Your task to perform on an android device: Open settings on Google Maps Image 0: 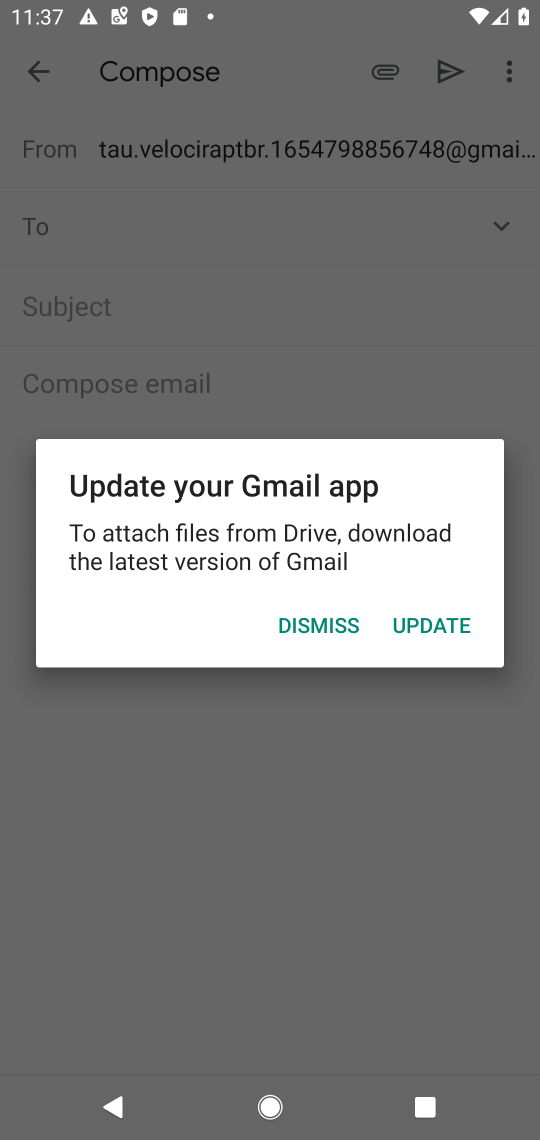
Step 0: press home button
Your task to perform on an android device: Open settings on Google Maps Image 1: 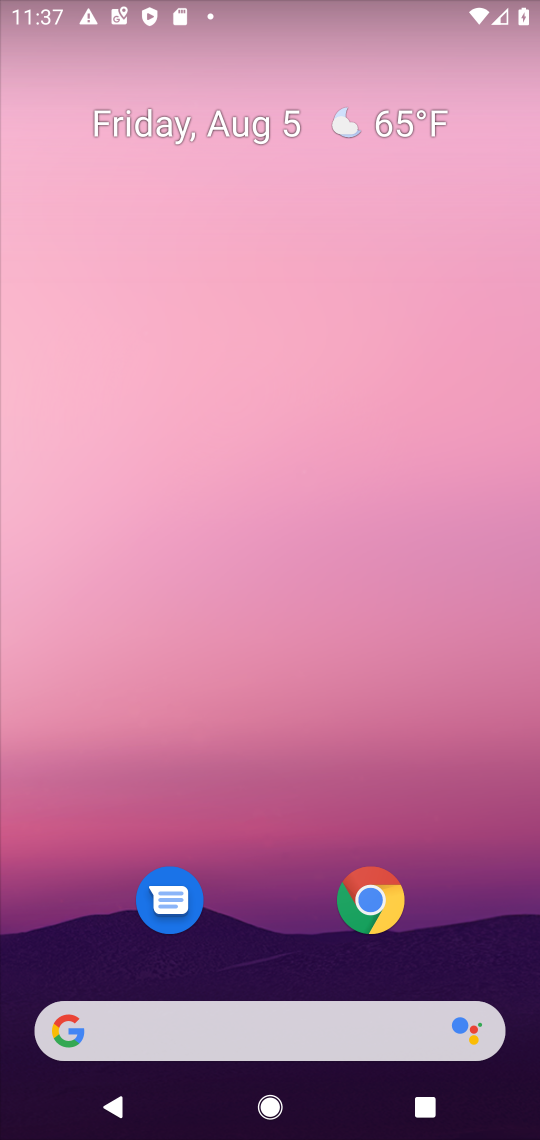
Step 1: press home button
Your task to perform on an android device: Open settings on Google Maps Image 2: 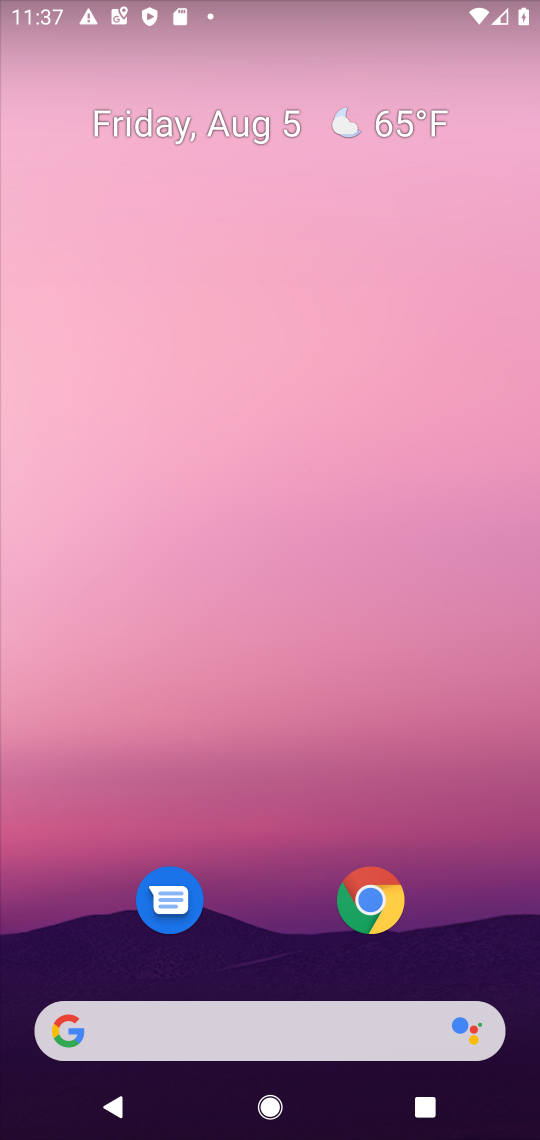
Step 2: press home button
Your task to perform on an android device: Open settings on Google Maps Image 3: 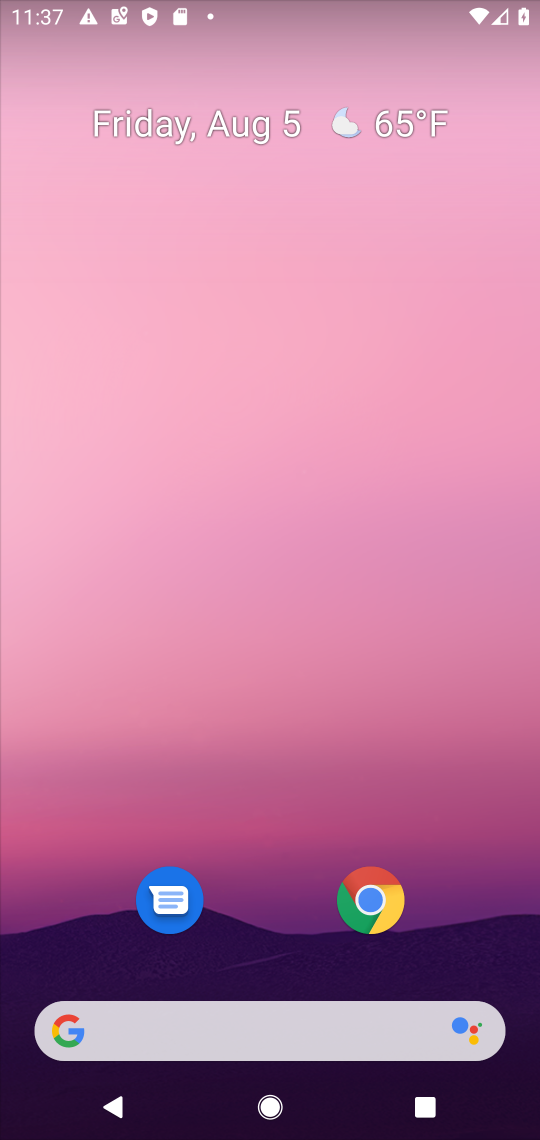
Step 3: drag from (297, 986) to (285, 116)
Your task to perform on an android device: Open settings on Google Maps Image 4: 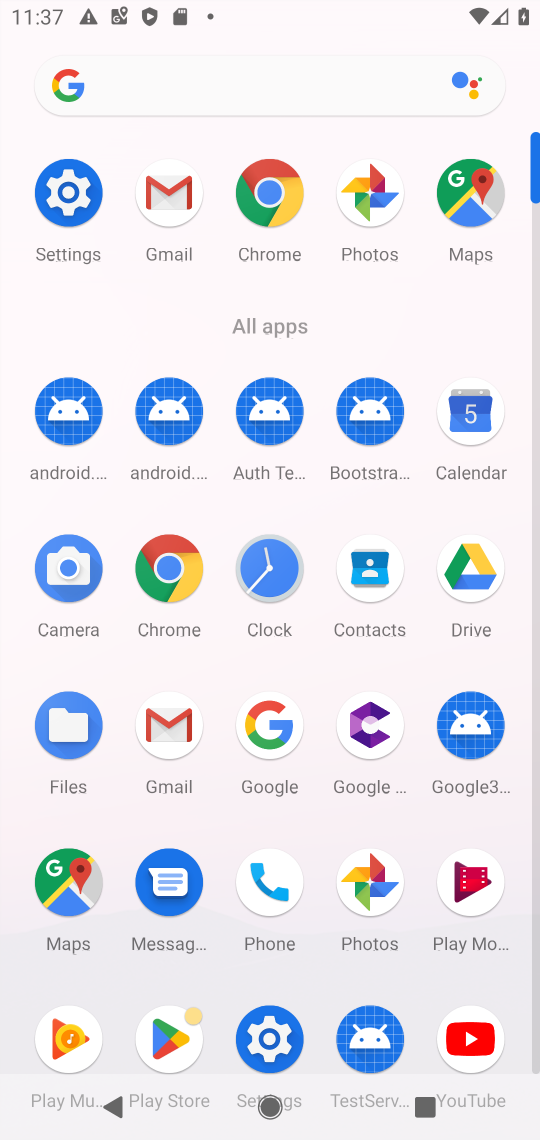
Step 4: click (76, 201)
Your task to perform on an android device: Open settings on Google Maps Image 5: 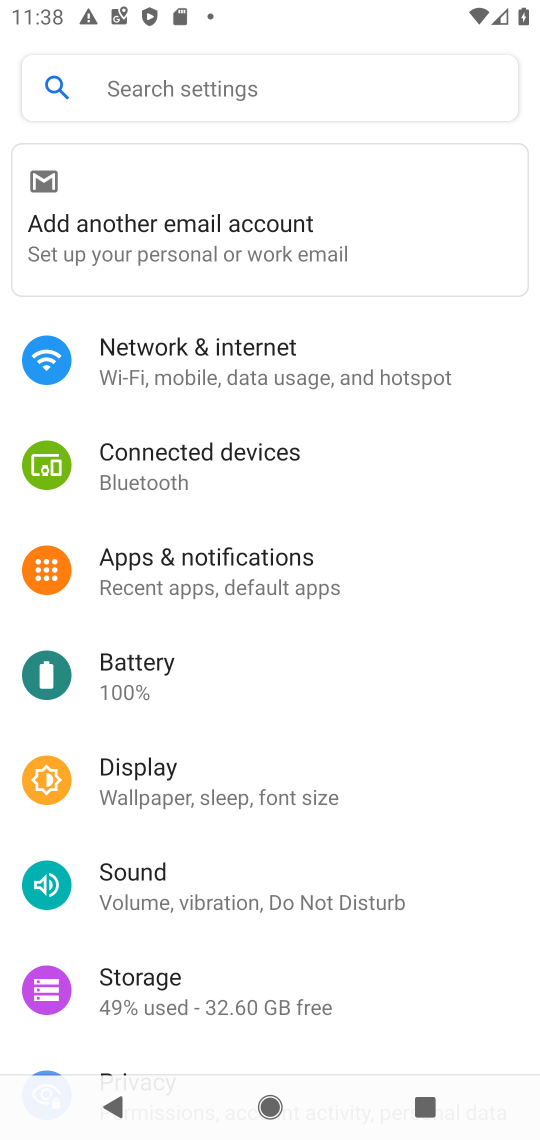
Step 5: press home button
Your task to perform on an android device: Open settings on Google Maps Image 6: 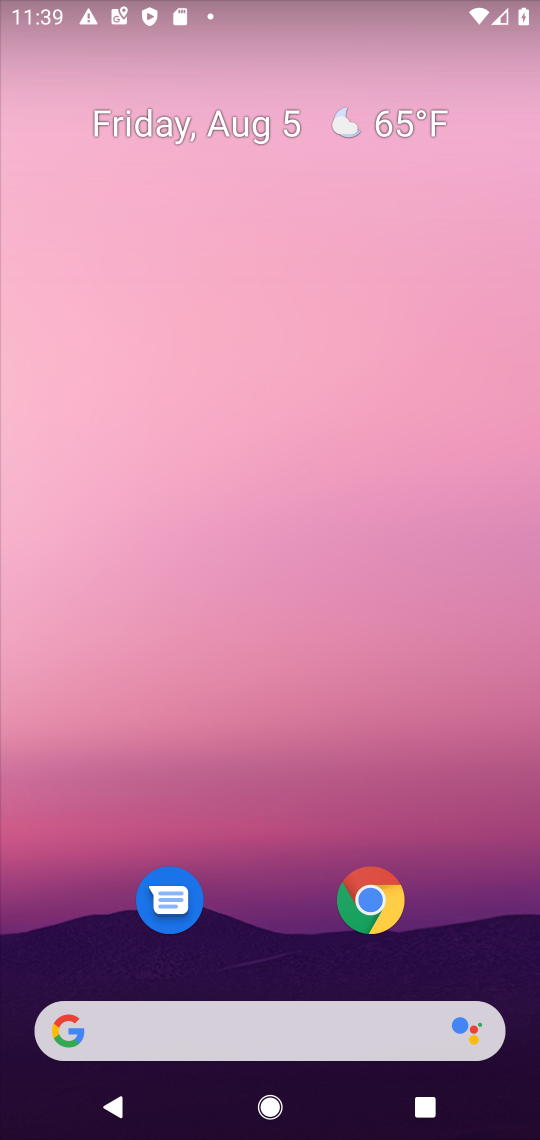
Step 6: drag from (280, 949) to (257, 135)
Your task to perform on an android device: Open settings on Google Maps Image 7: 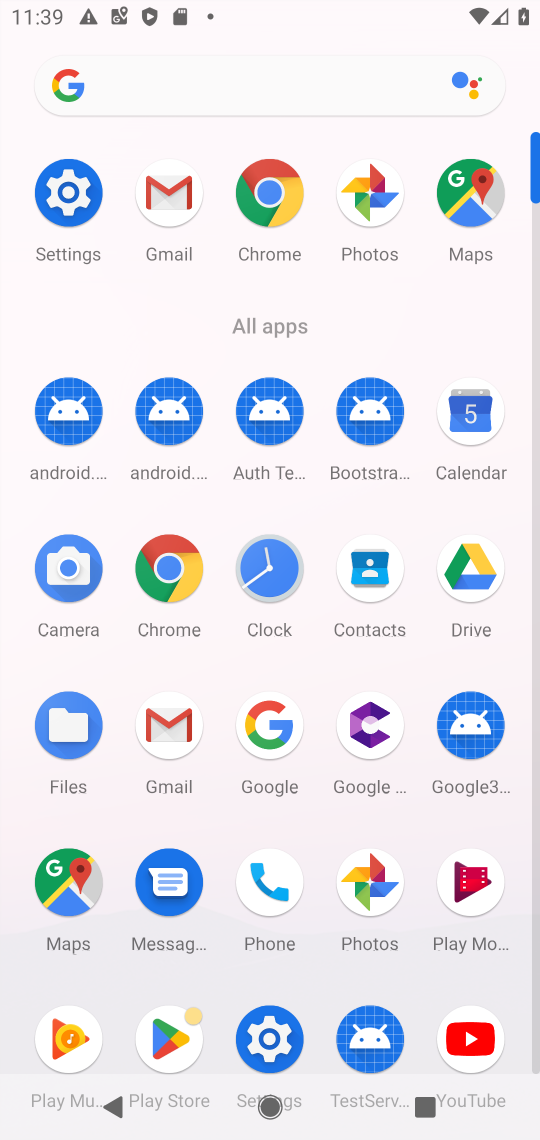
Step 7: click (69, 877)
Your task to perform on an android device: Open settings on Google Maps Image 8: 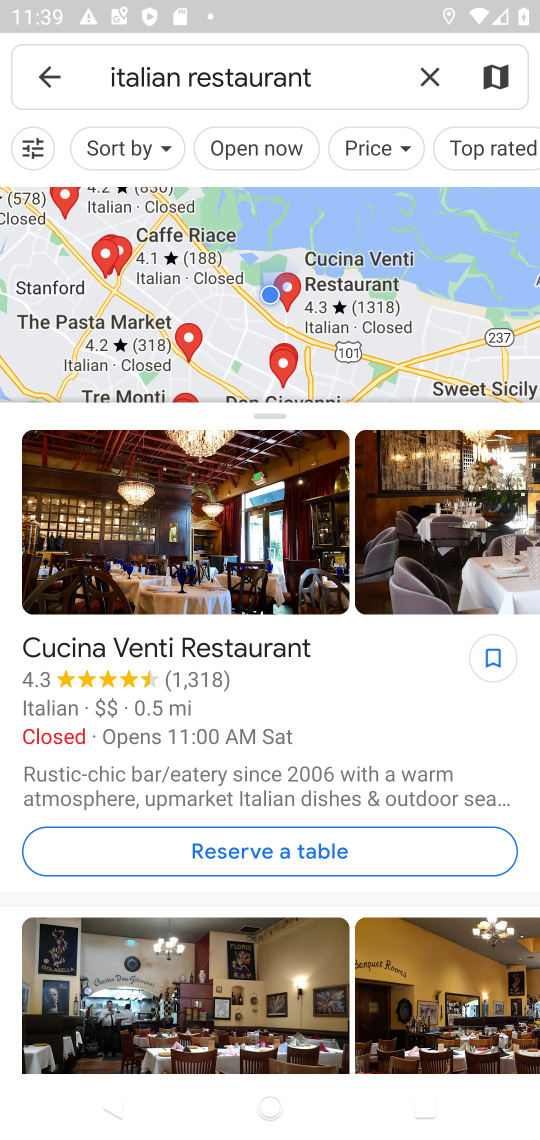
Step 8: click (44, 77)
Your task to perform on an android device: Open settings on Google Maps Image 9: 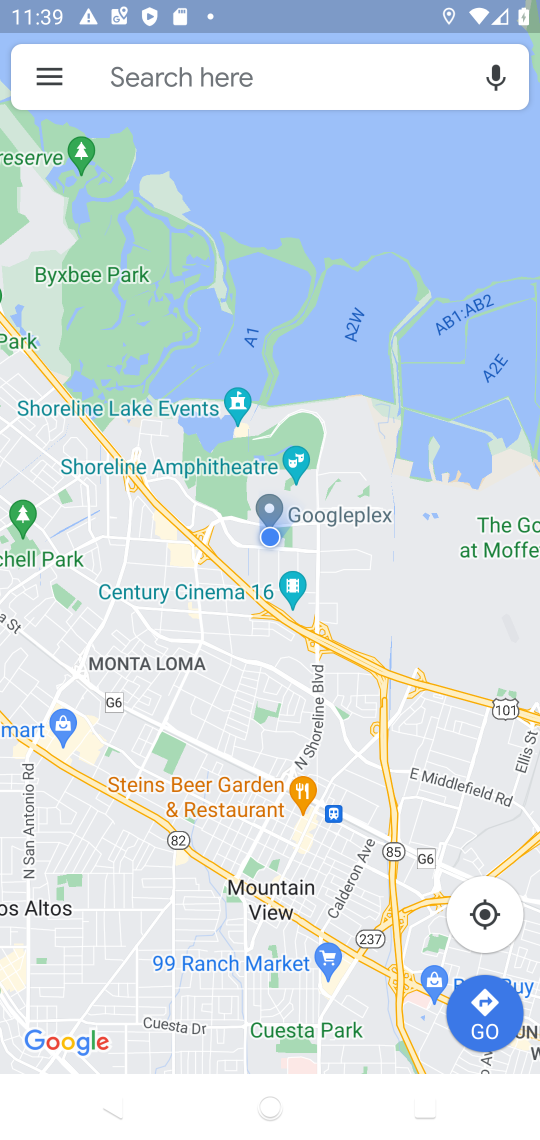
Step 9: click (44, 77)
Your task to perform on an android device: Open settings on Google Maps Image 10: 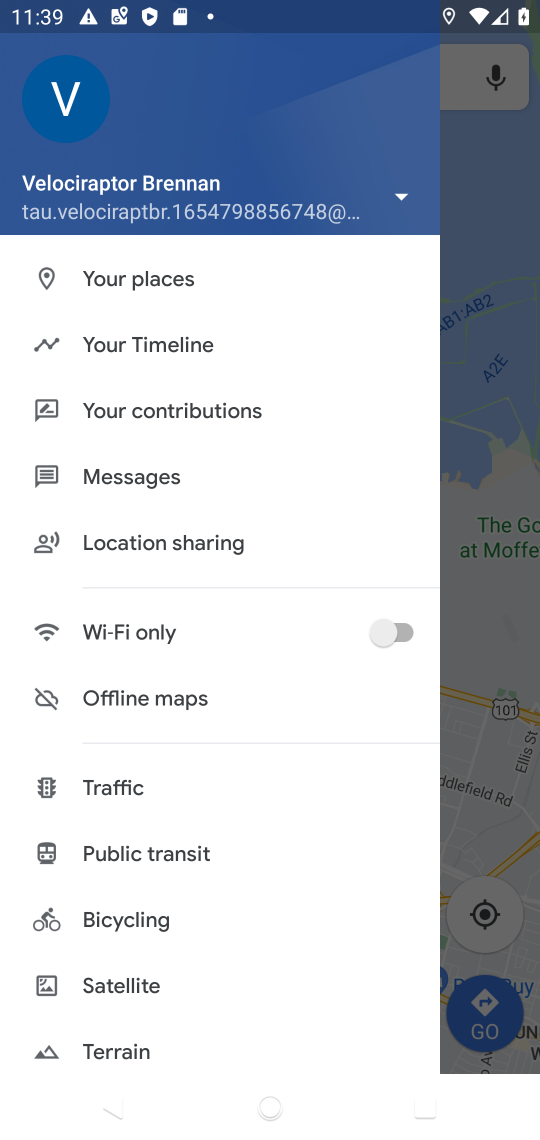
Step 10: drag from (113, 1065) to (164, 600)
Your task to perform on an android device: Open settings on Google Maps Image 11: 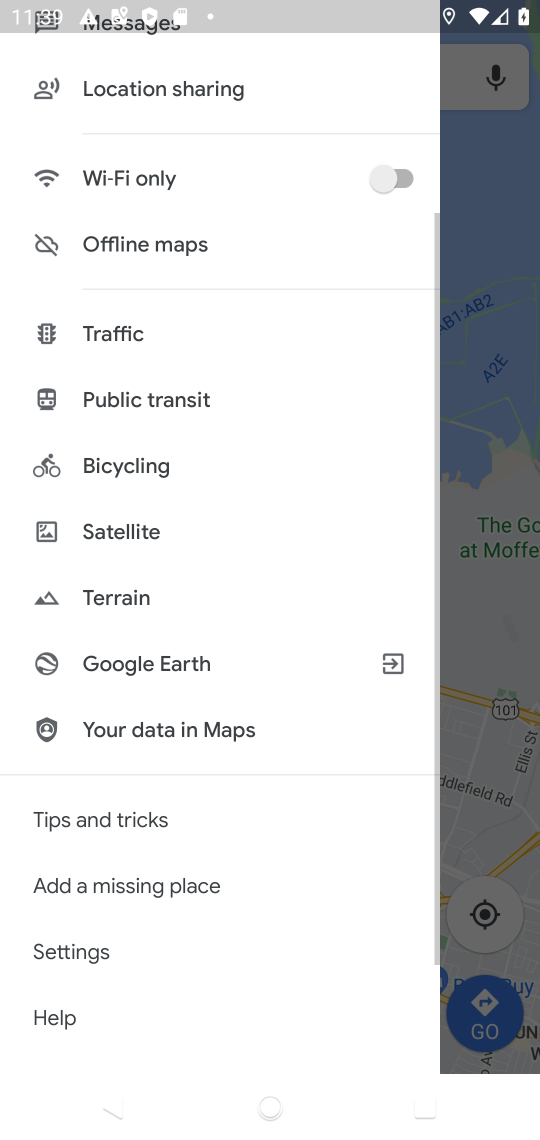
Step 11: drag from (109, 998) to (136, 535)
Your task to perform on an android device: Open settings on Google Maps Image 12: 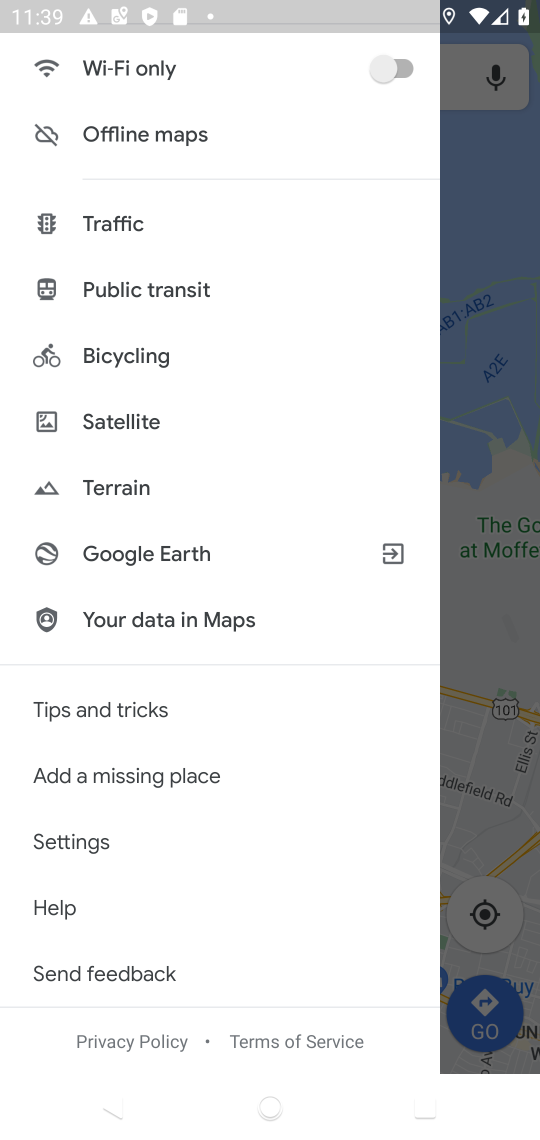
Step 12: click (85, 841)
Your task to perform on an android device: Open settings on Google Maps Image 13: 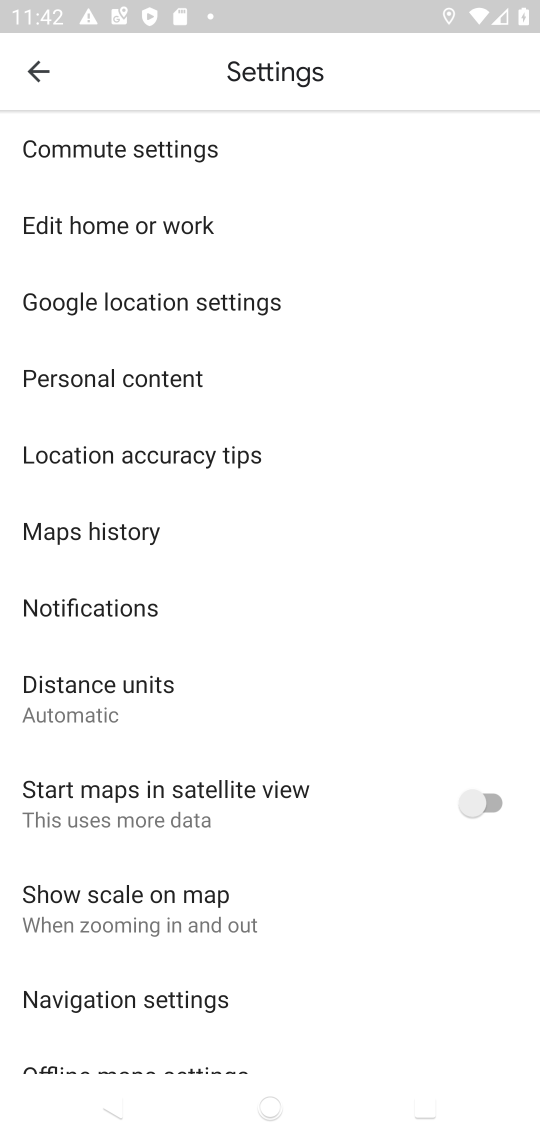
Step 13: task complete